Your task to perform on an android device: Open sound settings Image 0: 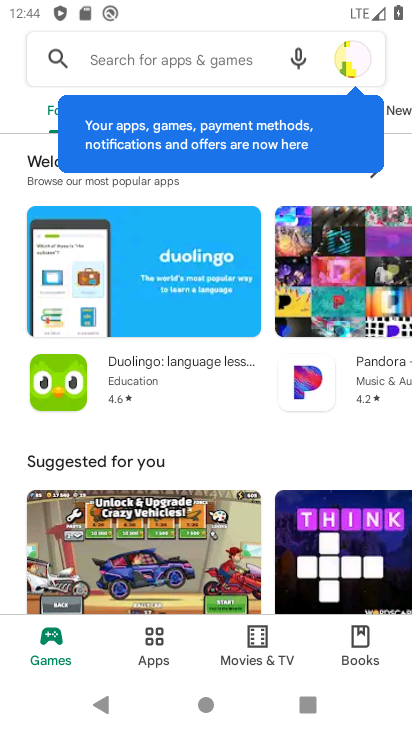
Step 0: press home button
Your task to perform on an android device: Open sound settings Image 1: 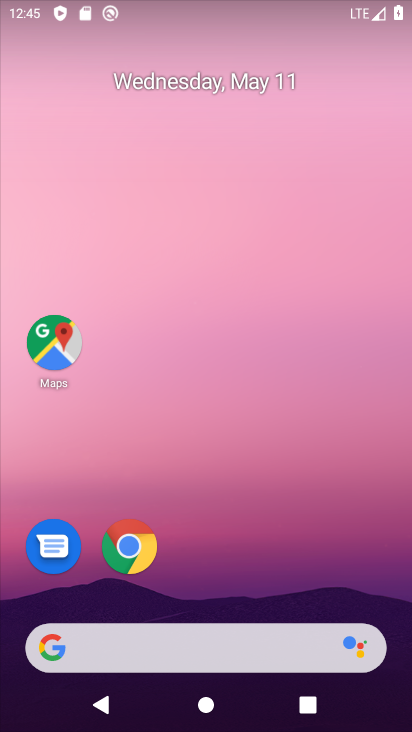
Step 1: drag from (257, 672) to (252, 156)
Your task to perform on an android device: Open sound settings Image 2: 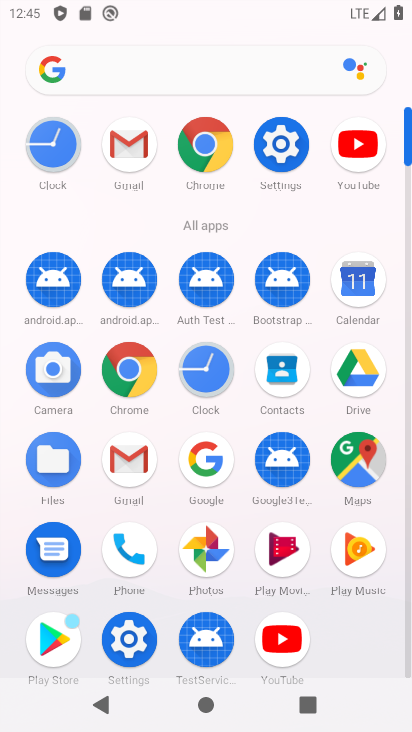
Step 2: click (148, 635)
Your task to perform on an android device: Open sound settings Image 3: 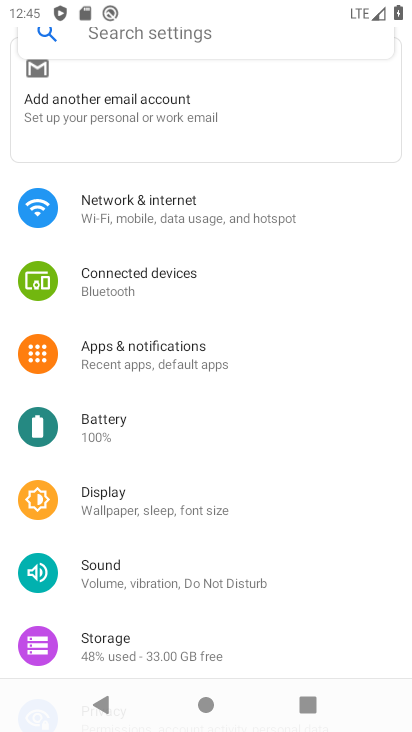
Step 3: click (125, 567)
Your task to perform on an android device: Open sound settings Image 4: 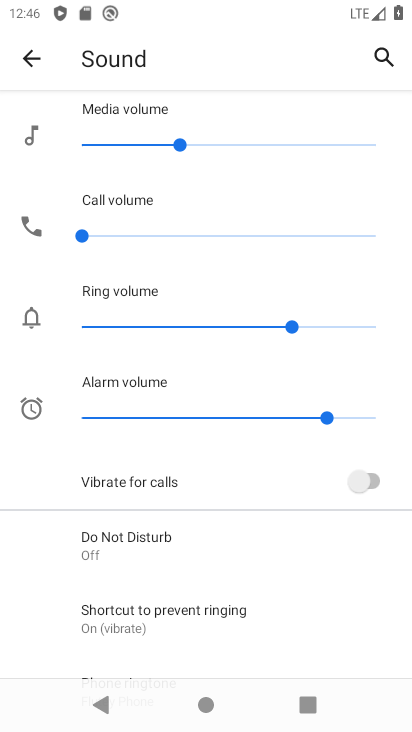
Step 4: task complete